Your task to perform on an android device: check android version Image 0: 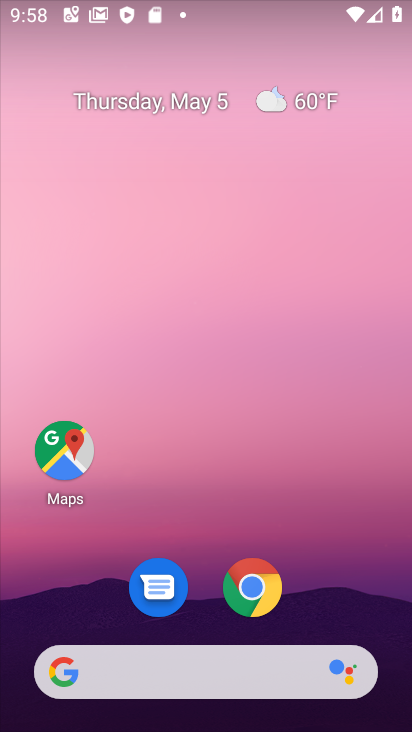
Step 0: drag from (100, 633) to (206, 133)
Your task to perform on an android device: check android version Image 1: 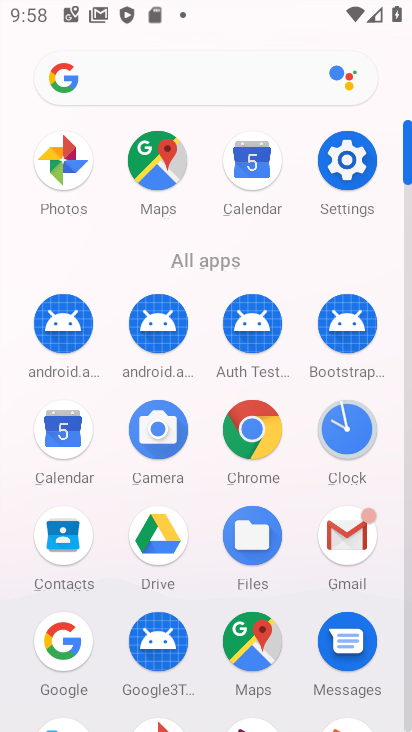
Step 1: click (340, 168)
Your task to perform on an android device: check android version Image 2: 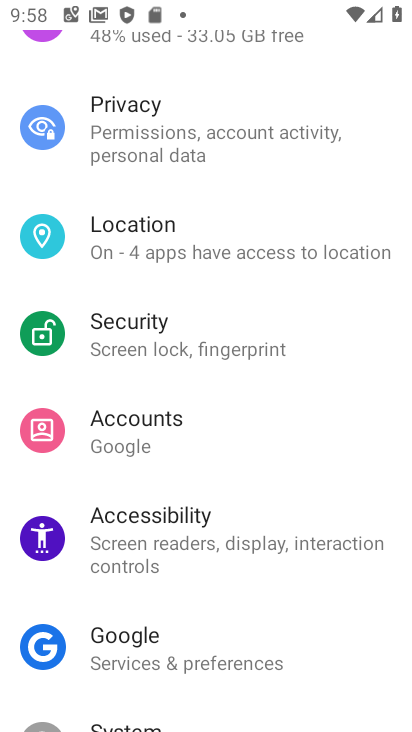
Step 2: drag from (242, 700) to (387, 174)
Your task to perform on an android device: check android version Image 3: 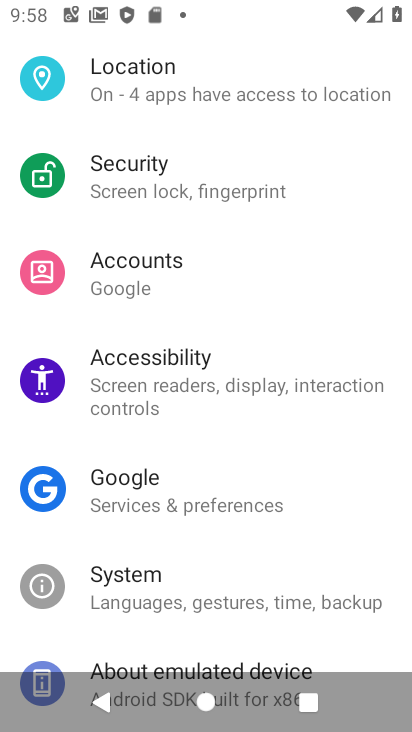
Step 3: click (199, 663)
Your task to perform on an android device: check android version Image 4: 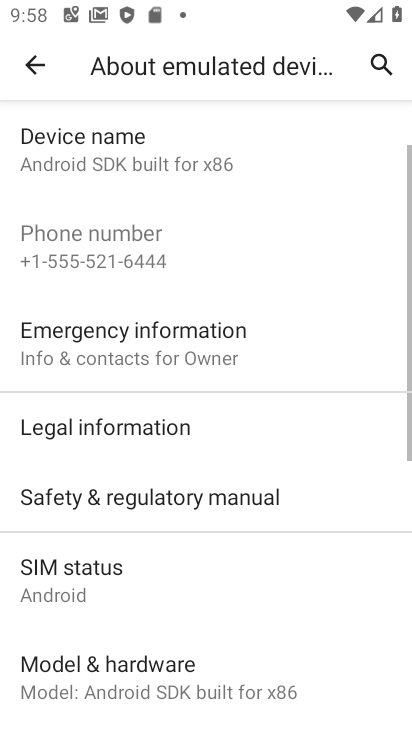
Step 4: drag from (145, 594) to (236, 259)
Your task to perform on an android device: check android version Image 5: 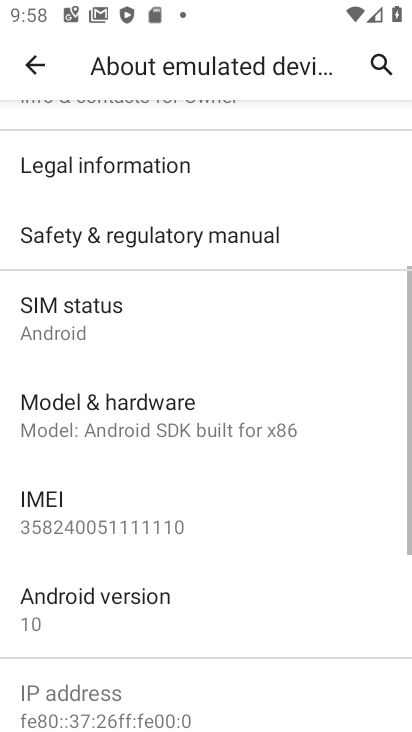
Step 5: click (138, 628)
Your task to perform on an android device: check android version Image 6: 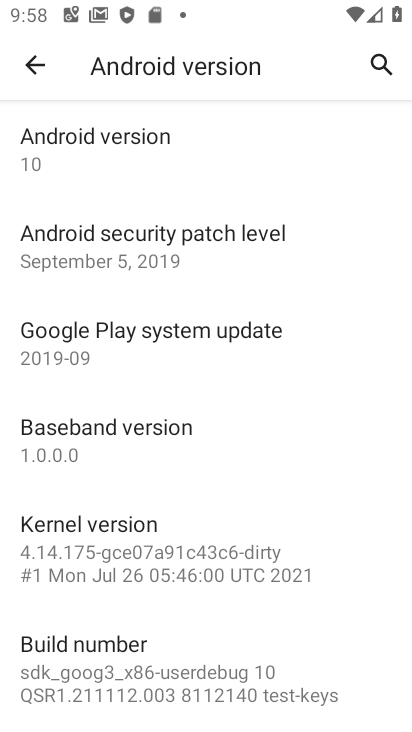
Step 6: task complete